Your task to perform on an android device: turn on priority inbox in the gmail app Image 0: 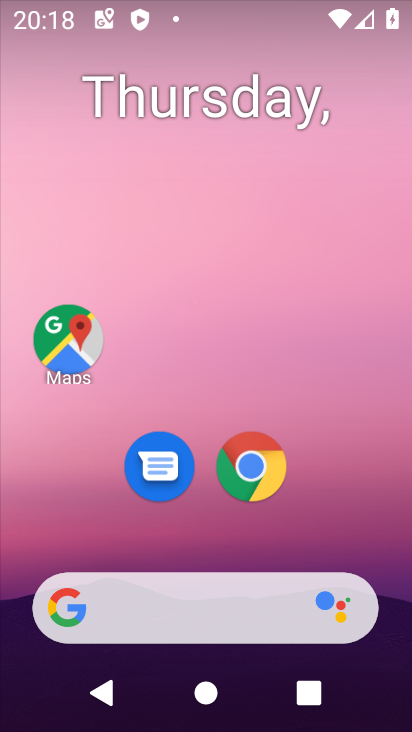
Step 0: drag from (332, 517) to (340, 109)
Your task to perform on an android device: turn on priority inbox in the gmail app Image 1: 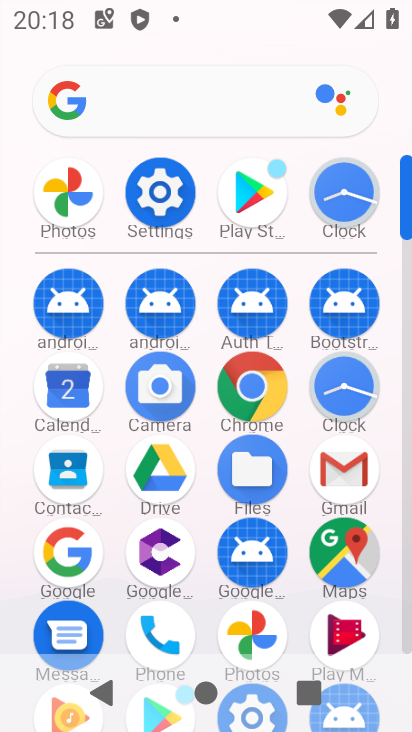
Step 1: click (365, 451)
Your task to perform on an android device: turn on priority inbox in the gmail app Image 2: 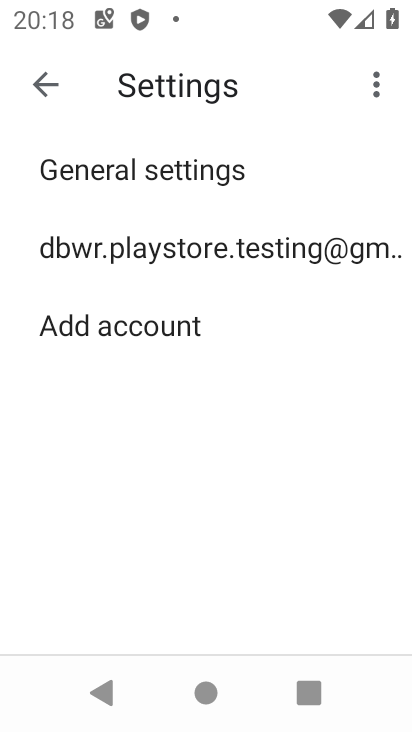
Step 2: click (37, 73)
Your task to perform on an android device: turn on priority inbox in the gmail app Image 3: 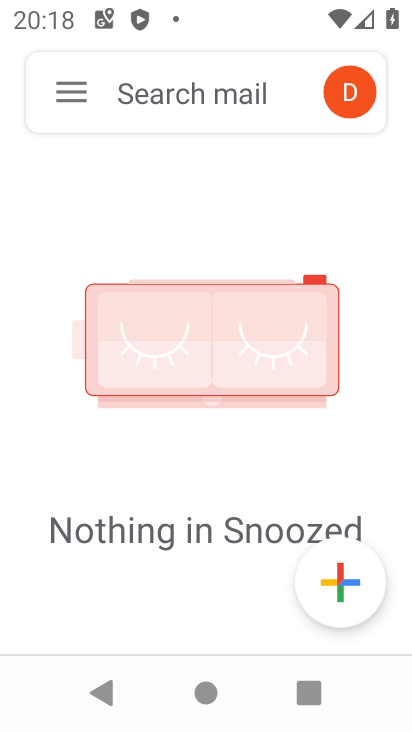
Step 3: click (77, 99)
Your task to perform on an android device: turn on priority inbox in the gmail app Image 4: 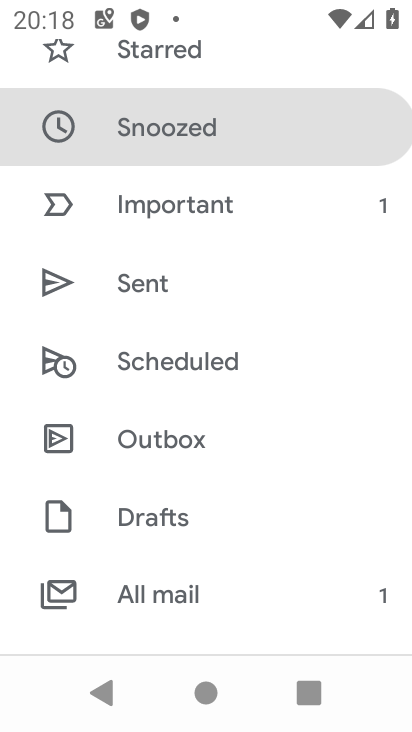
Step 4: drag from (293, 608) to (281, 71)
Your task to perform on an android device: turn on priority inbox in the gmail app Image 5: 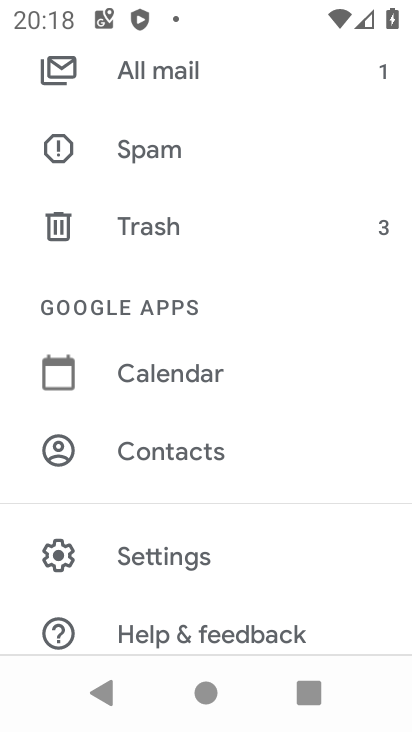
Step 5: click (197, 550)
Your task to perform on an android device: turn on priority inbox in the gmail app Image 6: 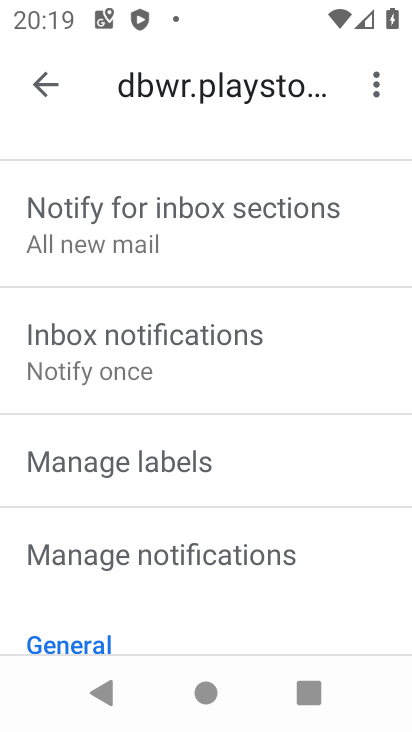
Step 6: drag from (362, 255) to (327, 581)
Your task to perform on an android device: turn on priority inbox in the gmail app Image 7: 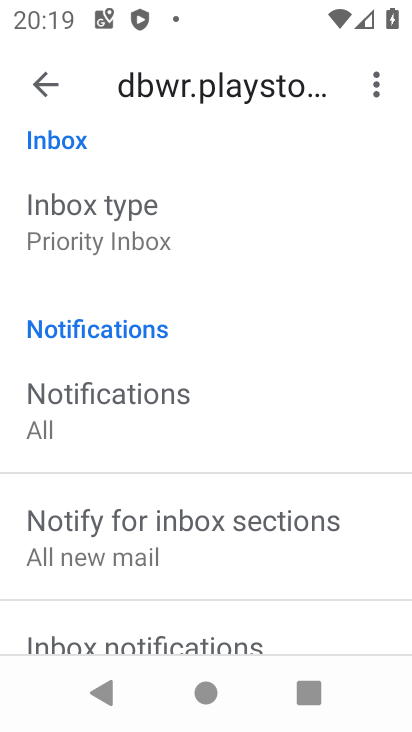
Step 7: click (144, 232)
Your task to perform on an android device: turn on priority inbox in the gmail app Image 8: 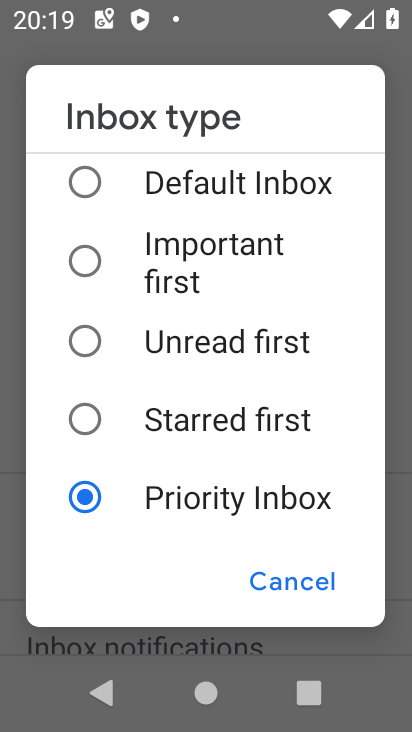
Step 8: task complete